Your task to perform on an android device: Open Chrome and go to settings Image 0: 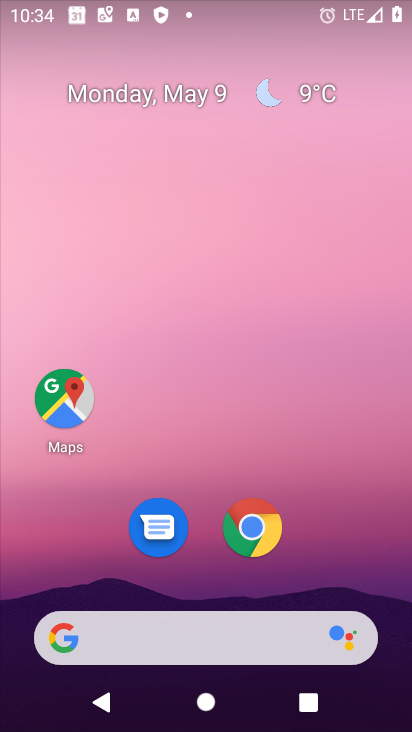
Step 0: click (257, 525)
Your task to perform on an android device: Open Chrome and go to settings Image 1: 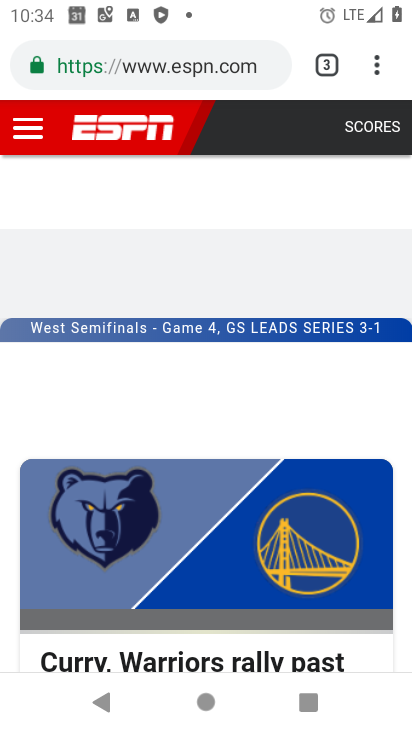
Step 1: click (374, 67)
Your task to perform on an android device: Open Chrome and go to settings Image 2: 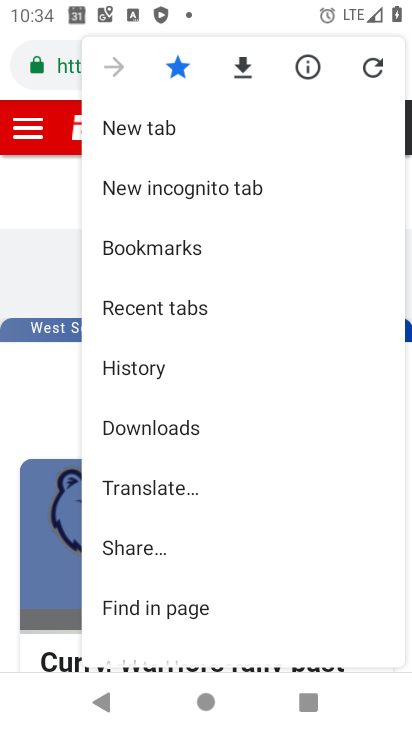
Step 2: drag from (226, 605) to (263, 238)
Your task to perform on an android device: Open Chrome and go to settings Image 3: 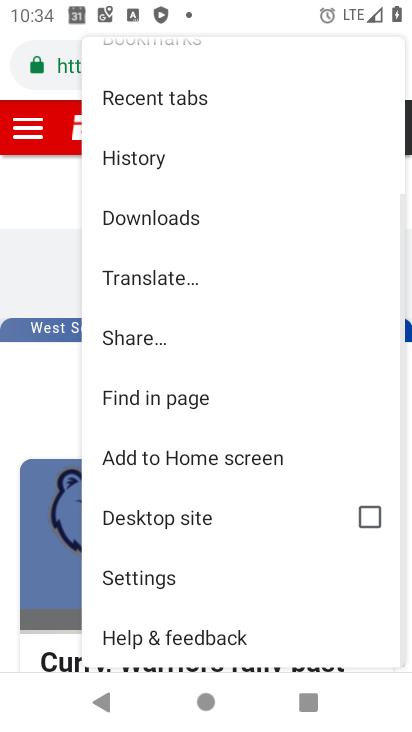
Step 3: click (127, 570)
Your task to perform on an android device: Open Chrome and go to settings Image 4: 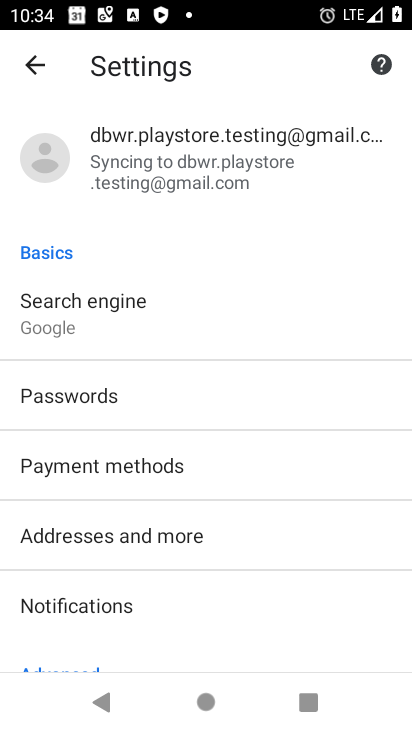
Step 4: task complete